Your task to perform on an android device: Toggle the flashlight Image 0: 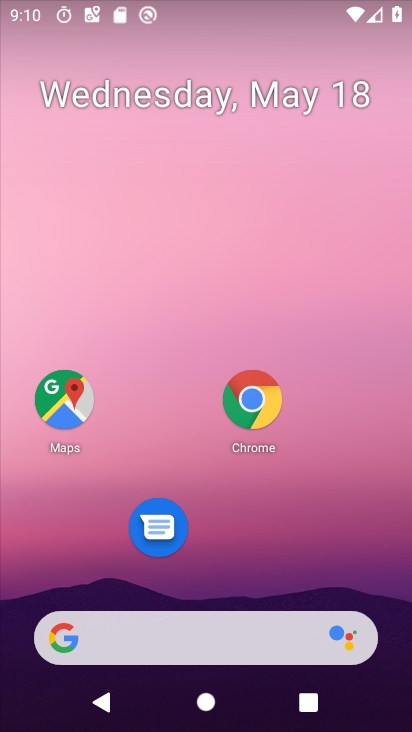
Step 0: drag from (268, 565) to (218, 46)
Your task to perform on an android device: Toggle the flashlight Image 1: 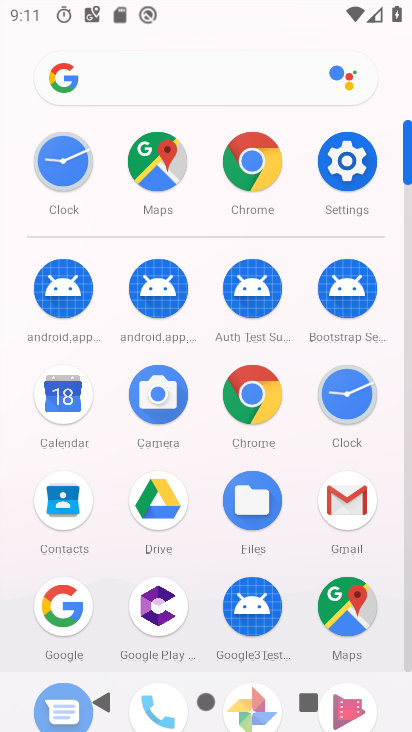
Step 1: task complete